Your task to perform on an android device: turn pop-ups on in chrome Image 0: 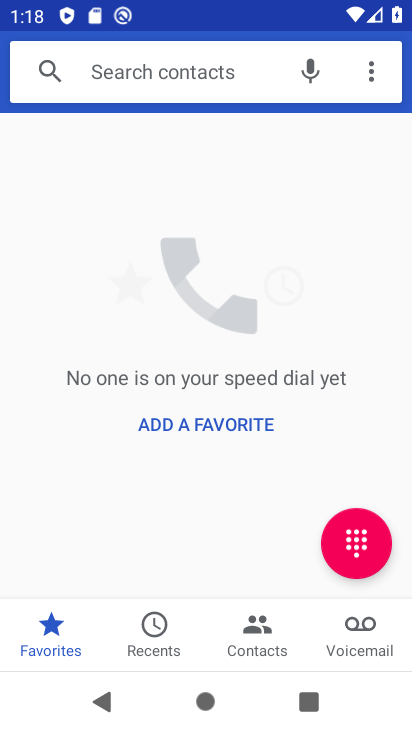
Step 0: press home button
Your task to perform on an android device: turn pop-ups on in chrome Image 1: 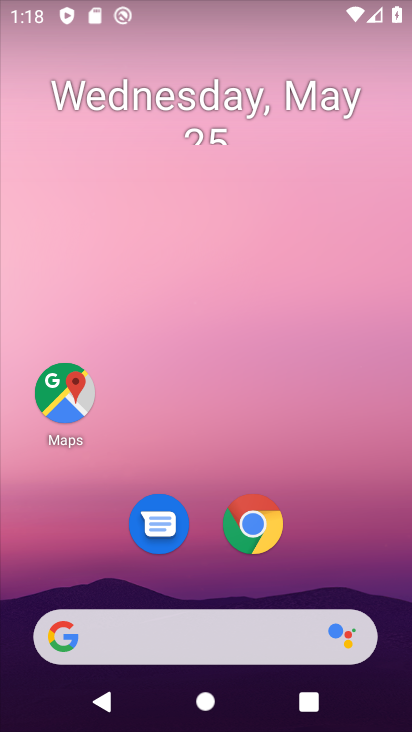
Step 1: click (252, 536)
Your task to perform on an android device: turn pop-ups on in chrome Image 2: 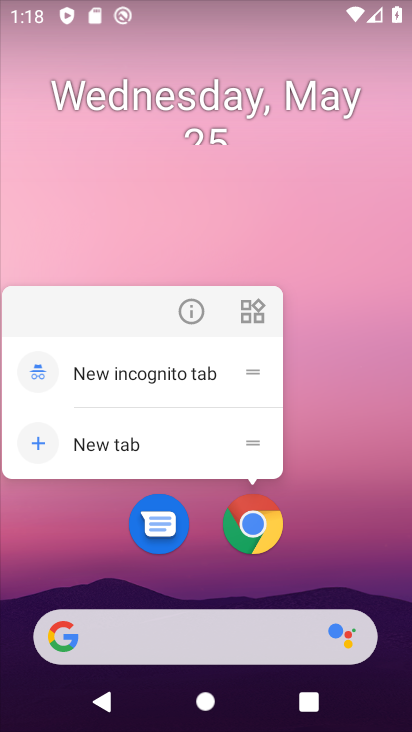
Step 2: click (185, 311)
Your task to perform on an android device: turn pop-ups on in chrome Image 3: 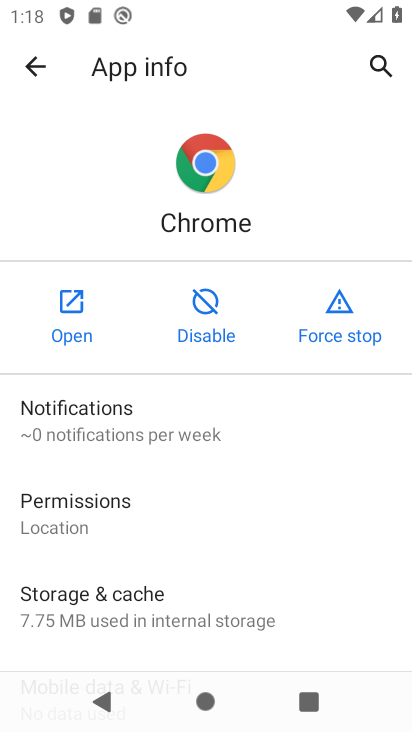
Step 3: press home button
Your task to perform on an android device: turn pop-ups on in chrome Image 4: 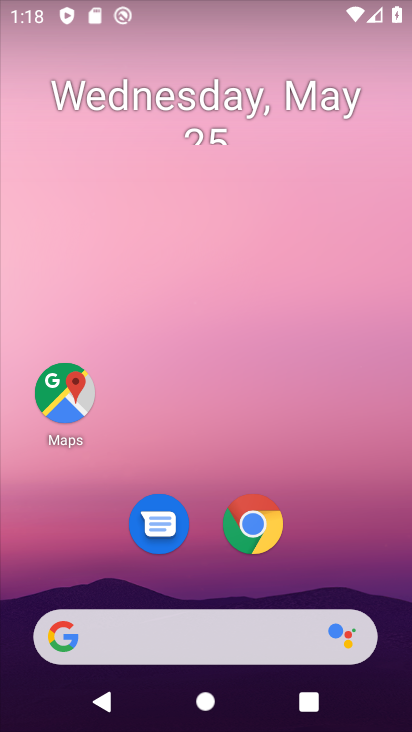
Step 4: click (264, 520)
Your task to perform on an android device: turn pop-ups on in chrome Image 5: 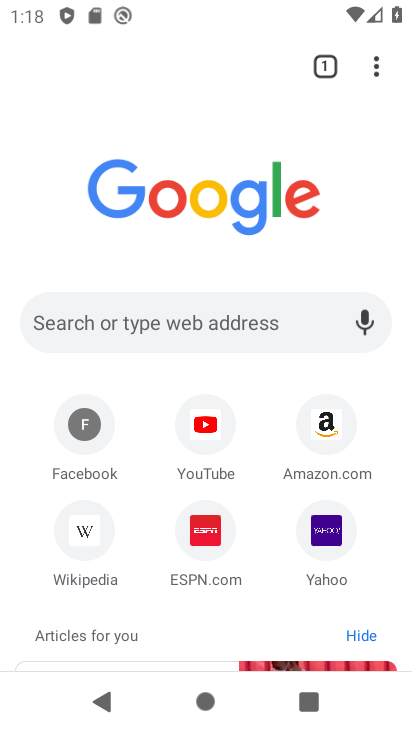
Step 5: click (371, 61)
Your task to perform on an android device: turn pop-ups on in chrome Image 6: 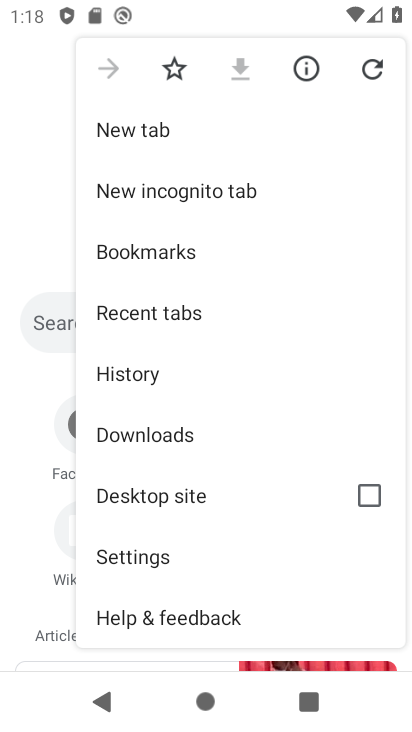
Step 6: click (169, 564)
Your task to perform on an android device: turn pop-ups on in chrome Image 7: 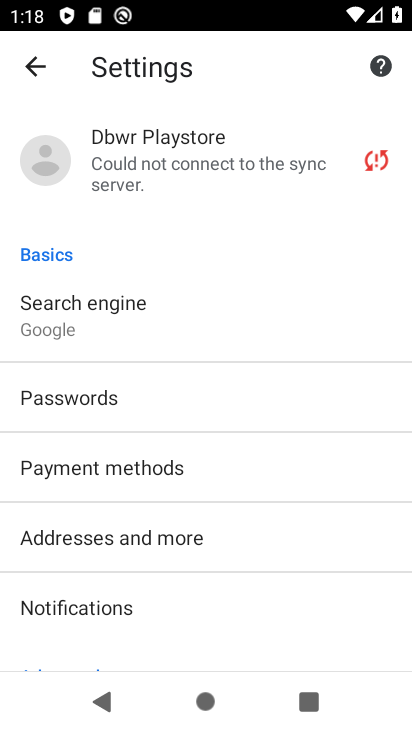
Step 7: drag from (252, 501) to (267, 293)
Your task to perform on an android device: turn pop-ups on in chrome Image 8: 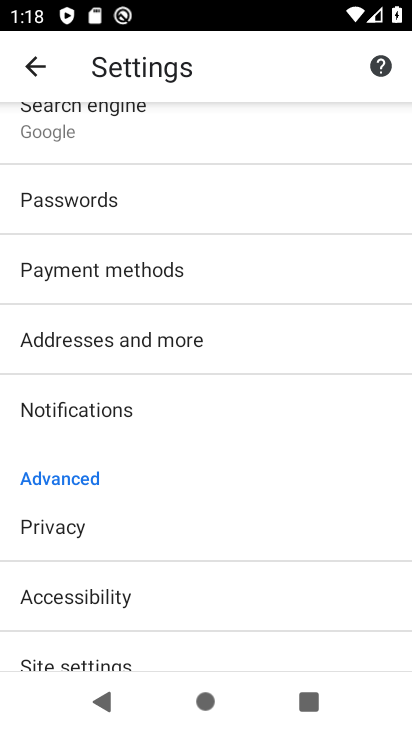
Step 8: drag from (238, 469) to (259, 246)
Your task to perform on an android device: turn pop-ups on in chrome Image 9: 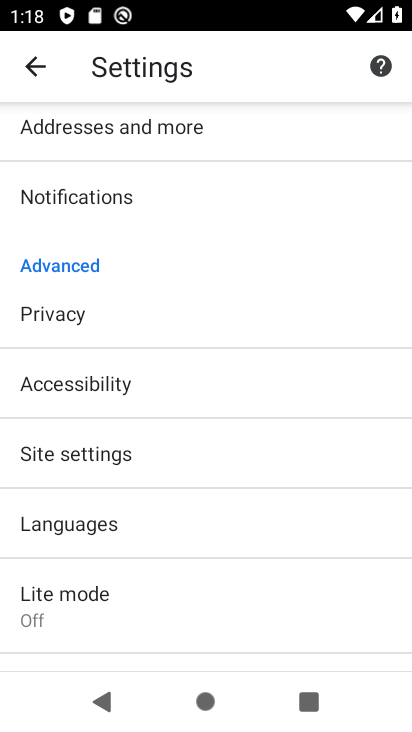
Step 9: click (215, 443)
Your task to perform on an android device: turn pop-ups on in chrome Image 10: 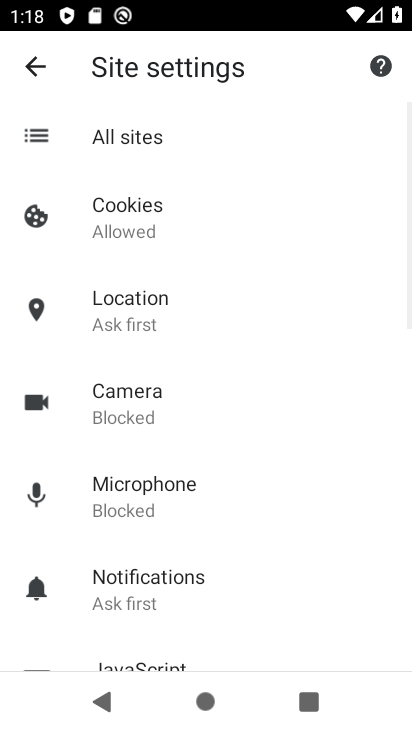
Step 10: drag from (229, 514) to (267, 154)
Your task to perform on an android device: turn pop-ups on in chrome Image 11: 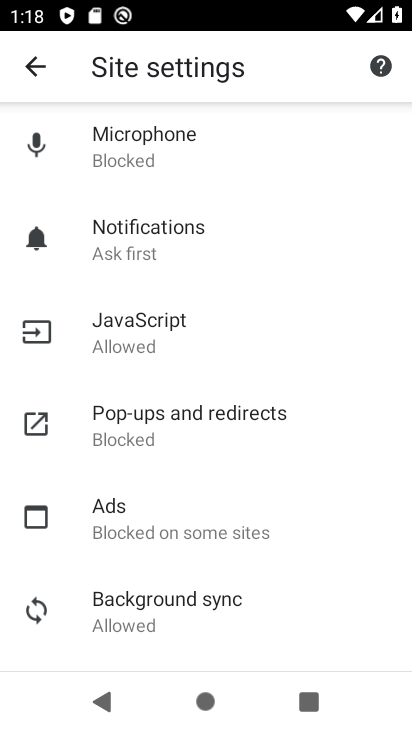
Step 11: click (239, 434)
Your task to perform on an android device: turn pop-ups on in chrome Image 12: 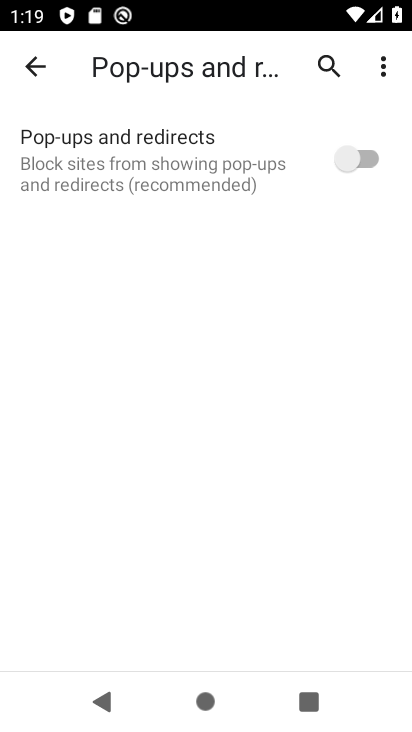
Step 12: click (349, 148)
Your task to perform on an android device: turn pop-ups on in chrome Image 13: 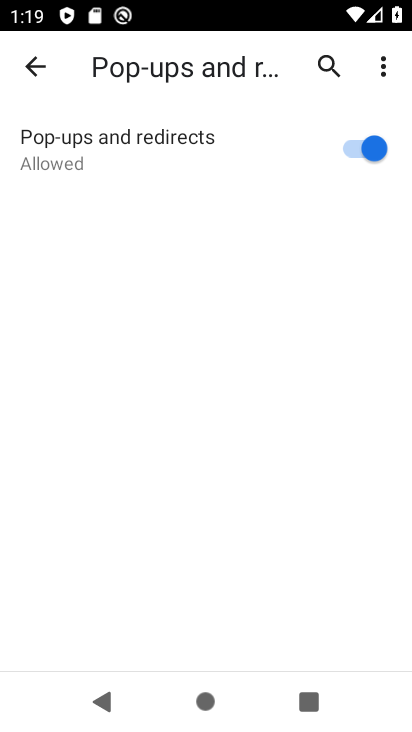
Step 13: task complete